Your task to perform on an android device: open chrome and create a bookmark for the current page Image 0: 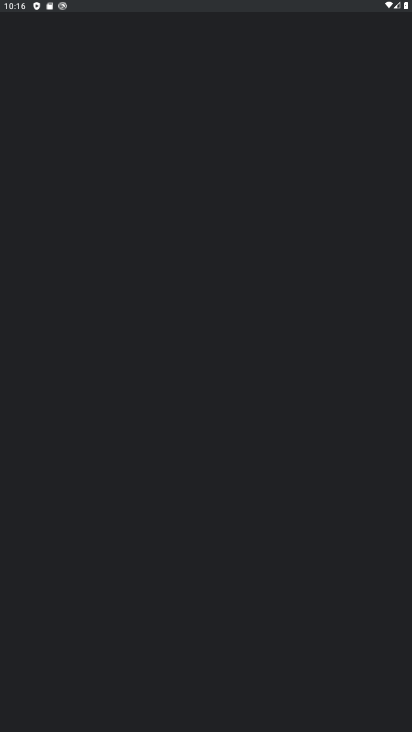
Step 0: drag from (234, 659) to (168, 65)
Your task to perform on an android device: open chrome and create a bookmark for the current page Image 1: 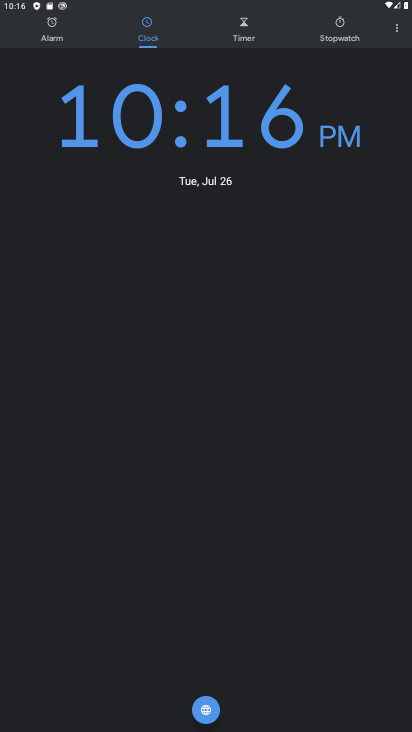
Step 1: press back button
Your task to perform on an android device: open chrome and create a bookmark for the current page Image 2: 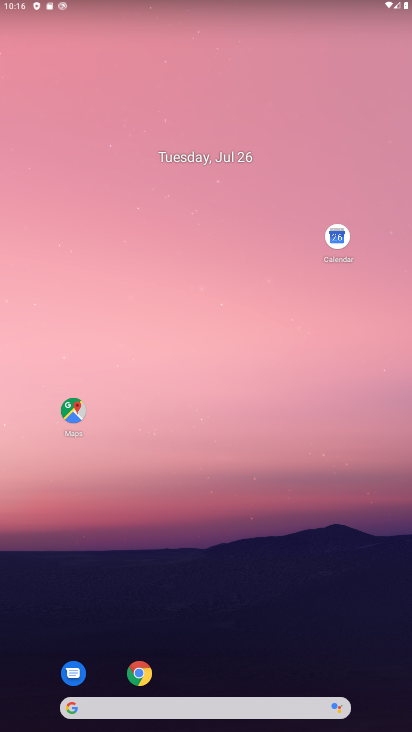
Step 2: drag from (226, 415) to (237, 8)
Your task to perform on an android device: open chrome and create a bookmark for the current page Image 3: 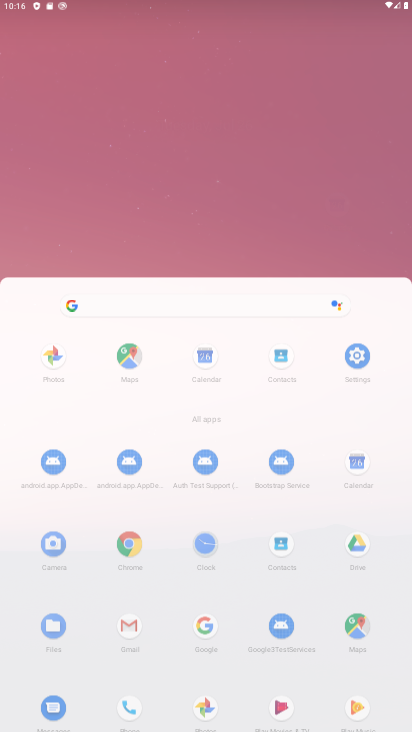
Step 3: click (199, 69)
Your task to perform on an android device: open chrome and create a bookmark for the current page Image 4: 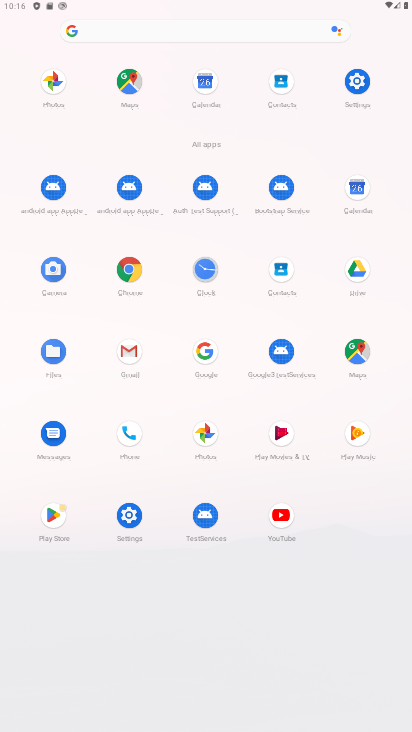
Step 4: drag from (221, 22) to (226, 113)
Your task to perform on an android device: open chrome and create a bookmark for the current page Image 5: 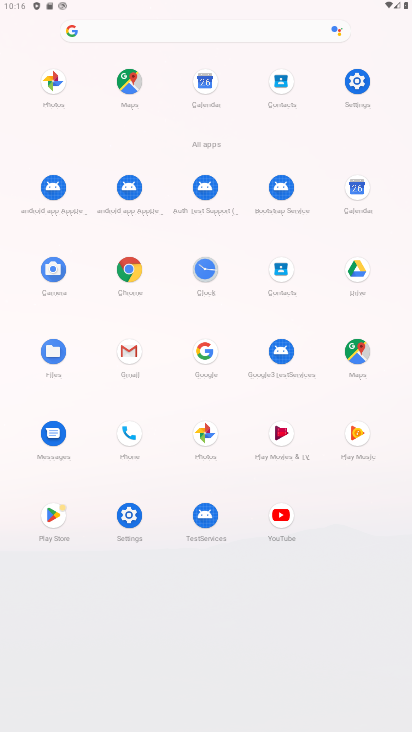
Step 5: click (119, 271)
Your task to perform on an android device: open chrome and create a bookmark for the current page Image 6: 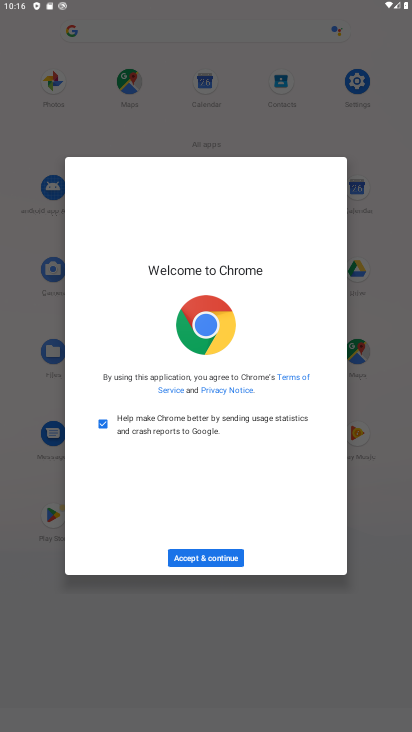
Step 6: click (237, 559)
Your task to perform on an android device: open chrome and create a bookmark for the current page Image 7: 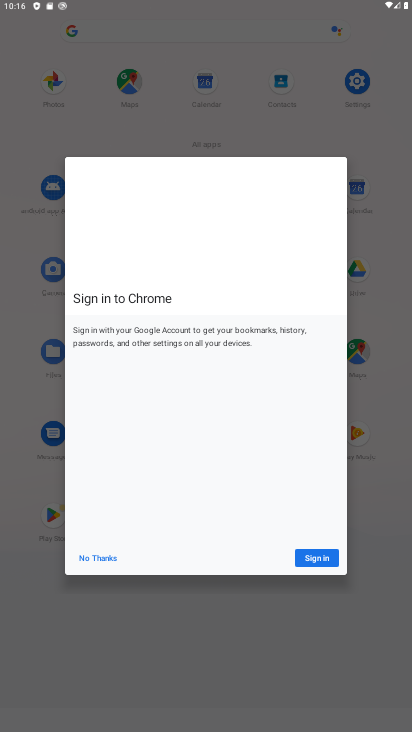
Step 7: click (109, 557)
Your task to perform on an android device: open chrome and create a bookmark for the current page Image 8: 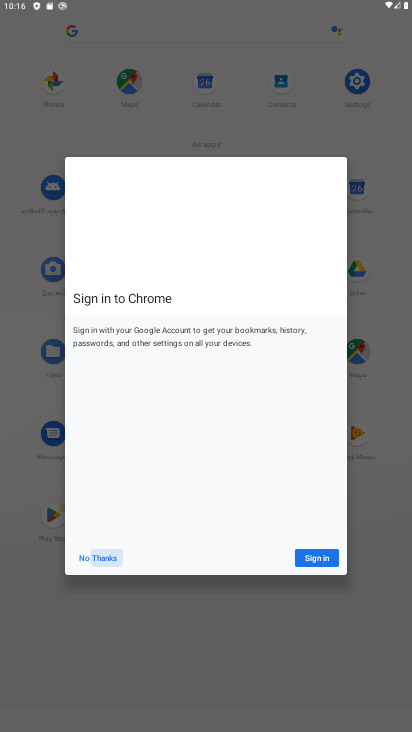
Step 8: click (109, 557)
Your task to perform on an android device: open chrome and create a bookmark for the current page Image 9: 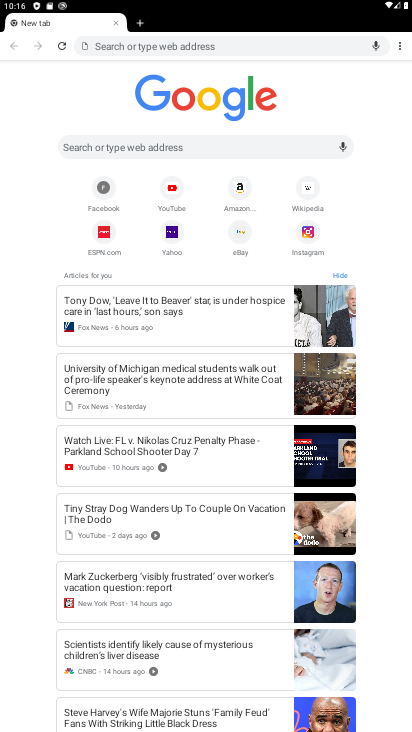
Step 9: drag from (397, 50) to (312, 98)
Your task to perform on an android device: open chrome and create a bookmark for the current page Image 10: 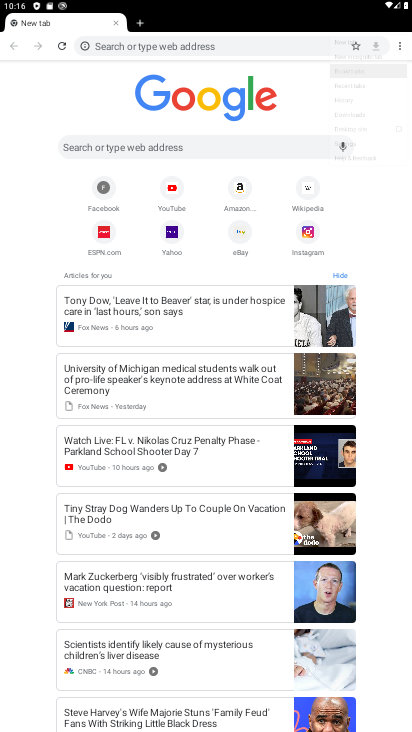
Step 10: click (314, 91)
Your task to perform on an android device: open chrome and create a bookmark for the current page Image 11: 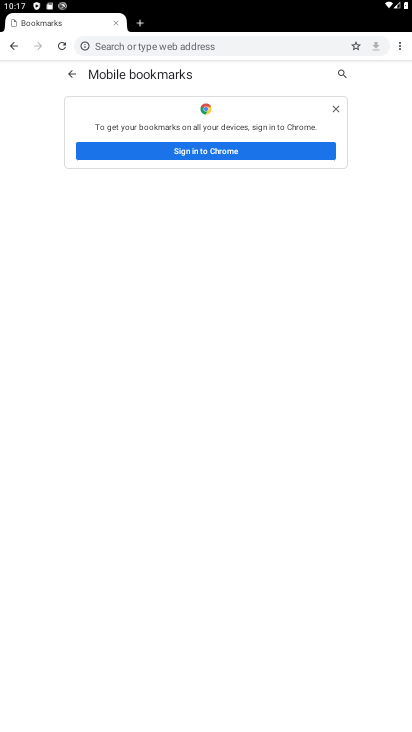
Step 11: click (352, 42)
Your task to perform on an android device: open chrome and create a bookmark for the current page Image 12: 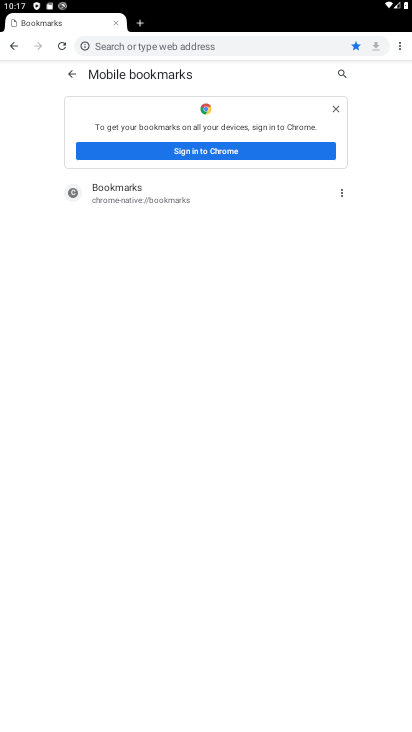
Step 12: task complete